Your task to perform on an android device: Go to Android settings Image 0: 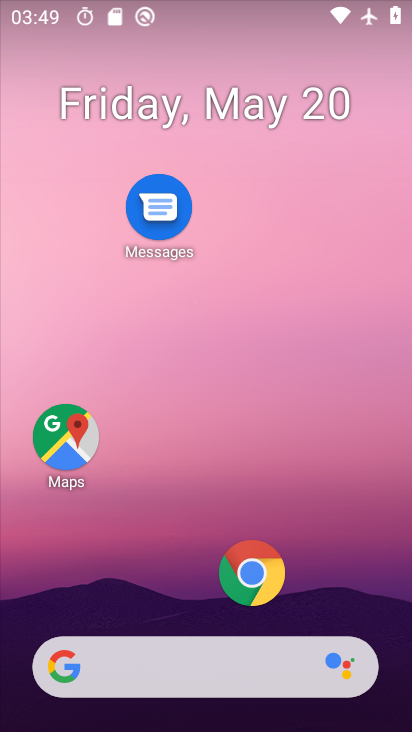
Step 0: drag from (189, 616) to (186, 183)
Your task to perform on an android device: Go to Android settings Image 1: 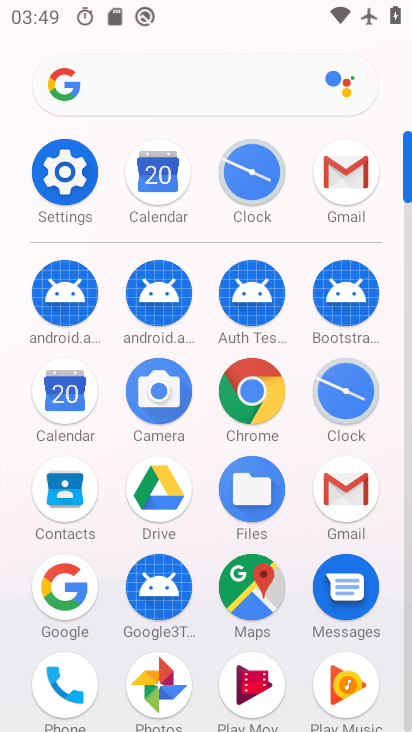
Step 1: click (66, 181)
Your task to perform on an android device: Go to Android settings Image 2: 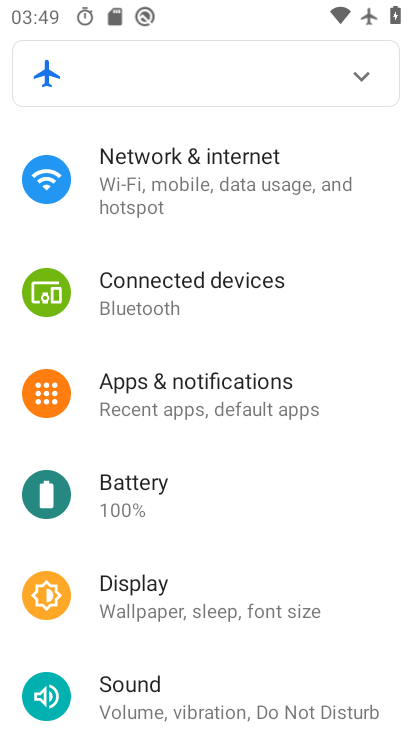
Step 2: task complete